Your task to perform on an android device: set default search engine in the chrome app Image 0: 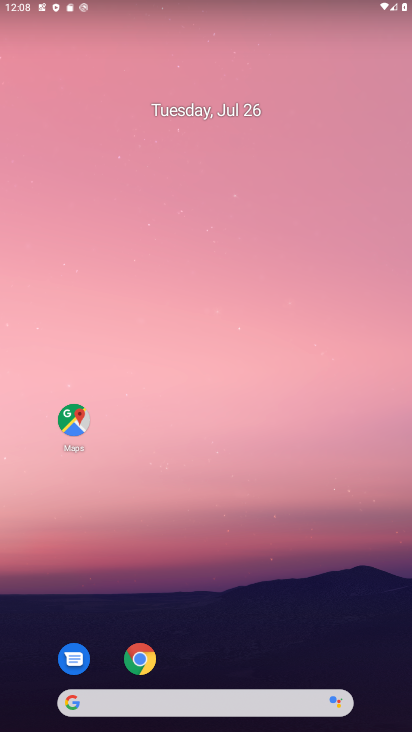
Step 0: drag from (181, 629) to (215, 371)
Your task to perform on an android device: set default search engine in the chrome app Image 1: 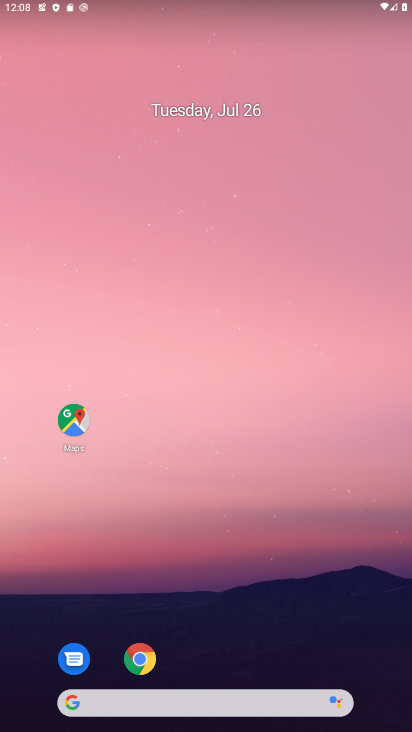
Step 1: drag from (205, 650) to (225, 526)
Your task to perform on an android device: set default search engine in the chrome app Image 2: 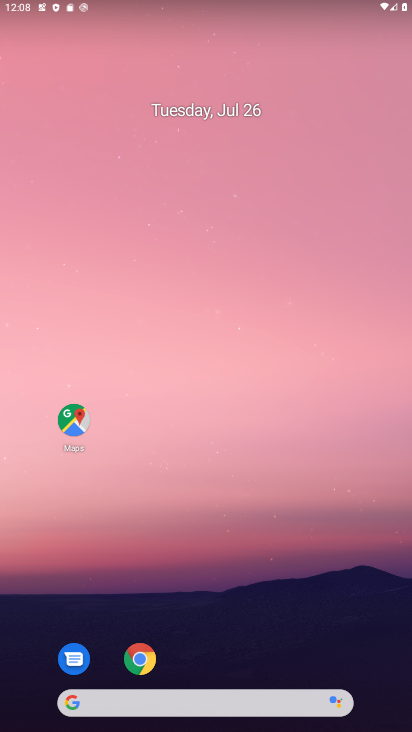
Step 2: click (144, 659)
Your task to perform on an android device: set default search engine in the chrome app Image 3: 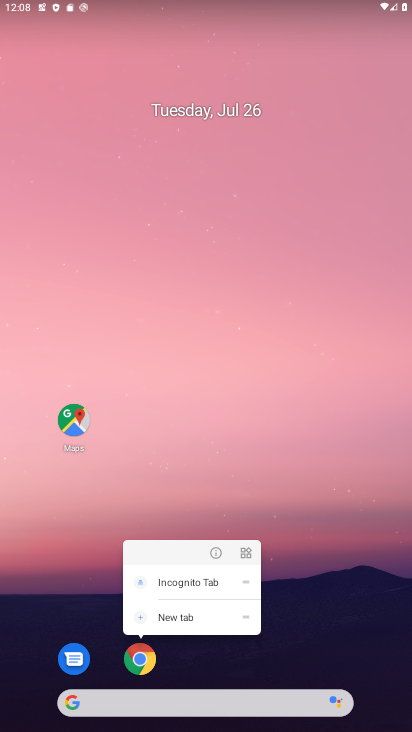
Step 3: click (212, 551)
Your task to perform on an android device: set default search engine in the chrome app Image 4: 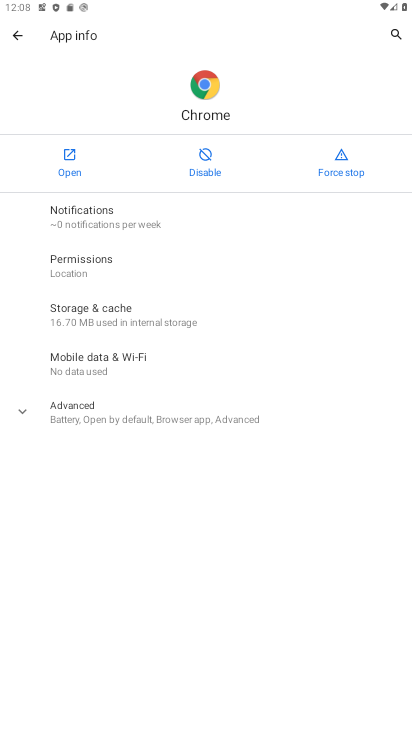
Step 4: click (51, 153)
Your task to perform on an android device: set default search engine in the chrome app Image 5: 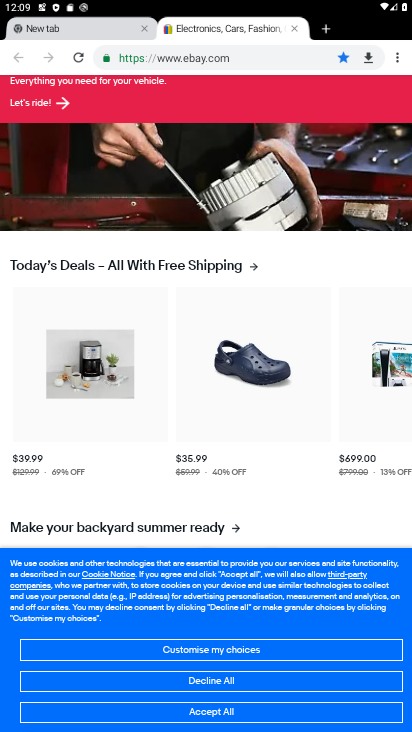
Step 5: drag from (401, 55) to (289, 386)
Your task to perform on an android device: set default search engine in the chrome app Image 6: 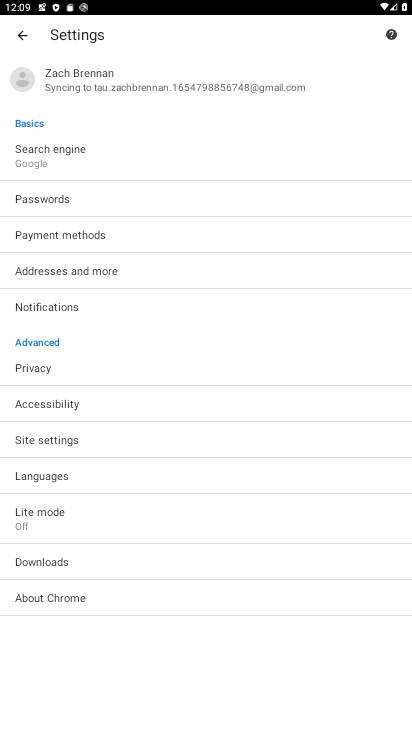
Step 6: click (92, 148)
Your task to perform on an android device: set default search engine in the chrome app Image 7: 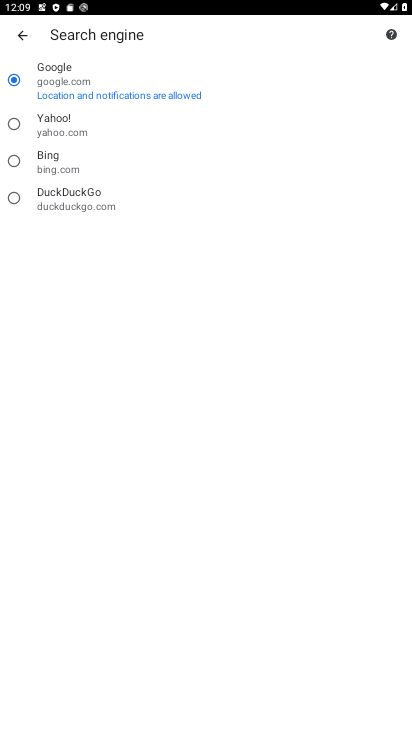
Step 7: task complete